Your task to perform on an android device: turn on translation in the chrome app Image 0: 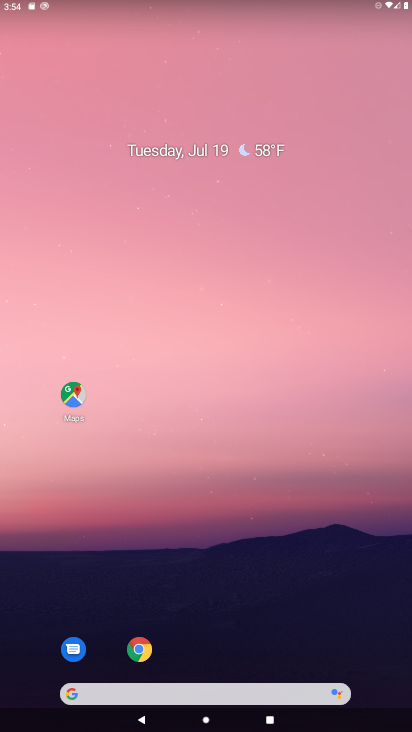
Step 0: click (145, 657)
Your task to perform on an android device: turn on translation in the chrome app Image 1: 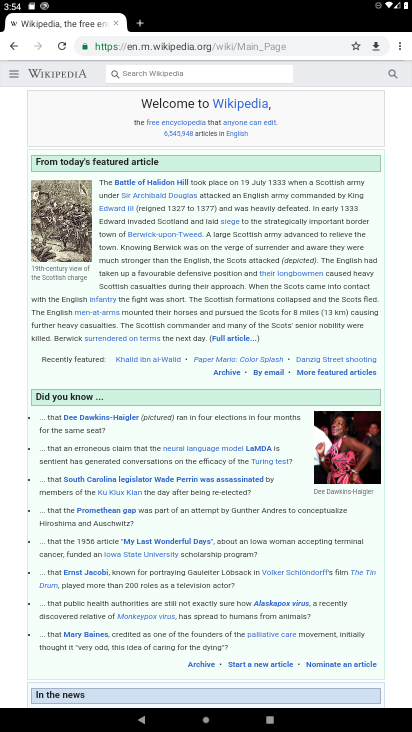
Step 1: click (402, 49)
Your task to perform on an android device: turn on translation in the chrome app Image 2: 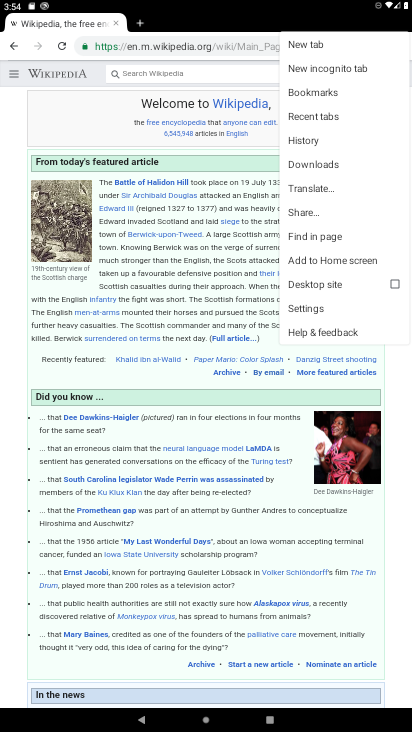
Step 2: click (304, 307)
Your task to perform on an android device: turn on translation in the chrome app Image 3: 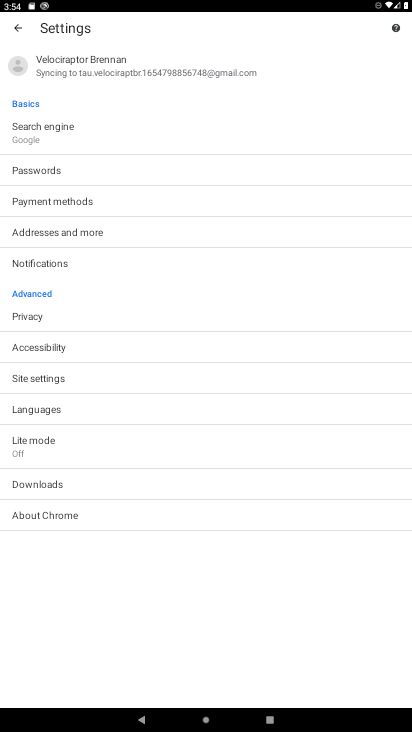
Step 3: click (49, 410)
Your task to perform on an android device: turn on translation in the chrome app Image 4: 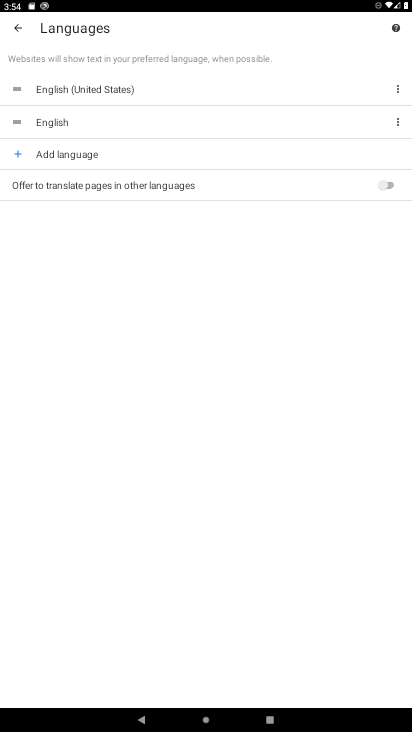
Step 4: click (393, 183)
Your task to perform on an android device: turn on translation in the chrome app Image 5: 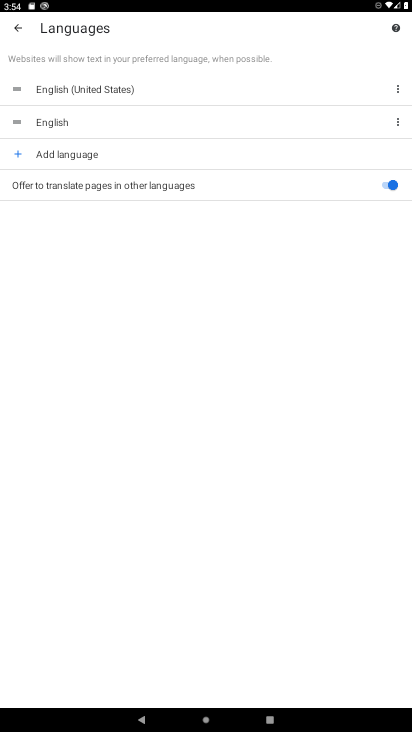
Step 5: task complete